Your task to perform on an android device: add a contact in the contacts app Image 0: 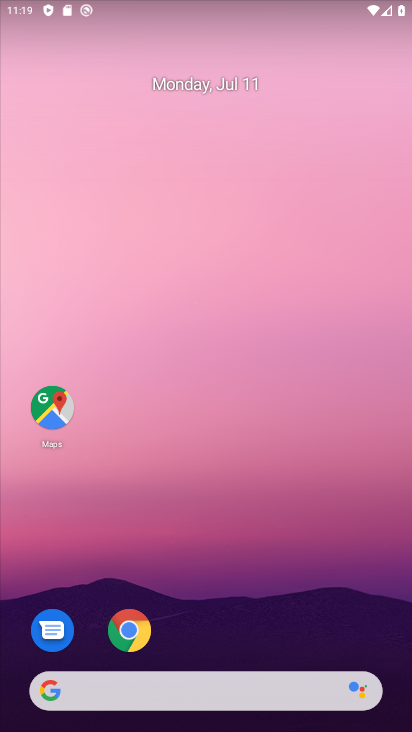
Step 0: drag from (355, 625) to (346, 175)
Your task to perform on an android device: add a contact in the contacts app Image 1: 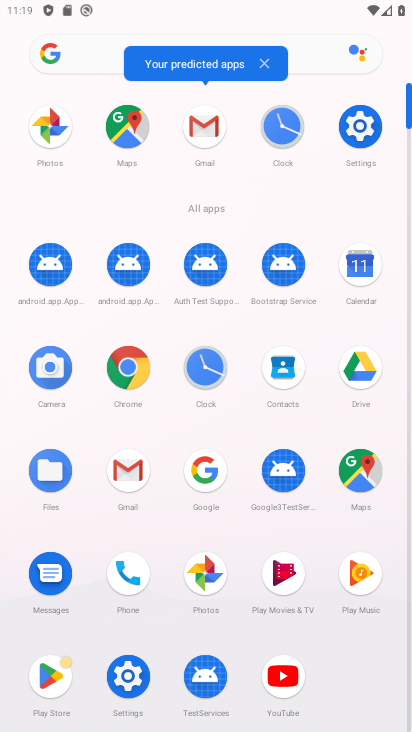
Step 1: click (282, 361)
Your task to perform on an android device: add a contact in the contacts app Image 2: 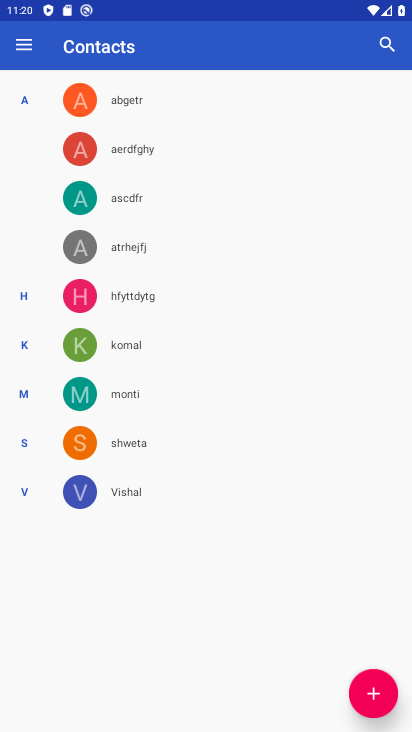
Step 2: click (367, 684)
Your task to perform on an android device: add a contact in the contacts app Image 3: 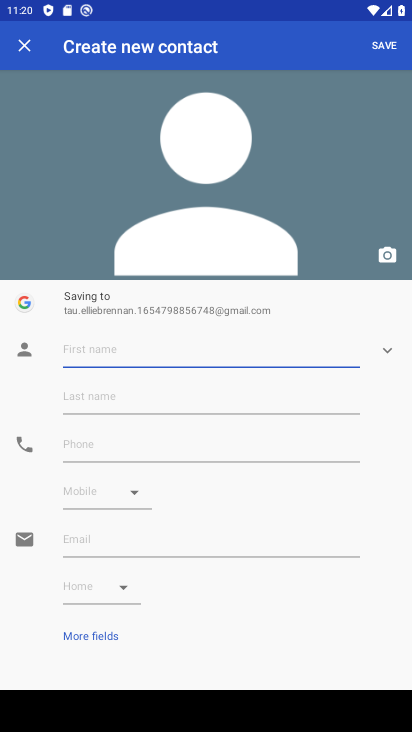
Step 3: type ""
Your task to perform on an android device: add a contact in the contacts app Image 4: 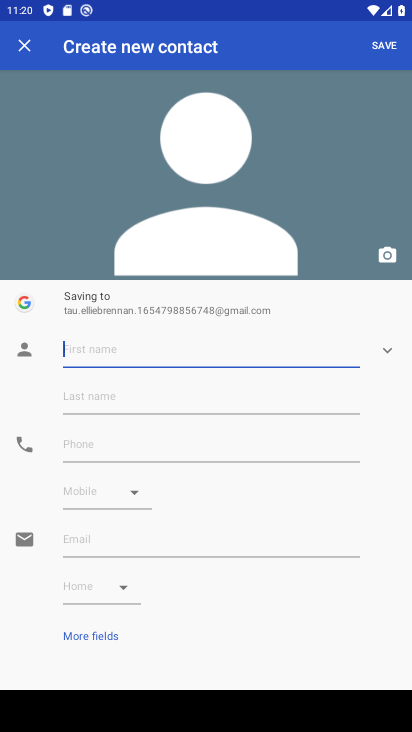
Step 4: type "khgfdgsgdfh"
Your task to perform on an android device: add a contact in the contacts app Image 5: 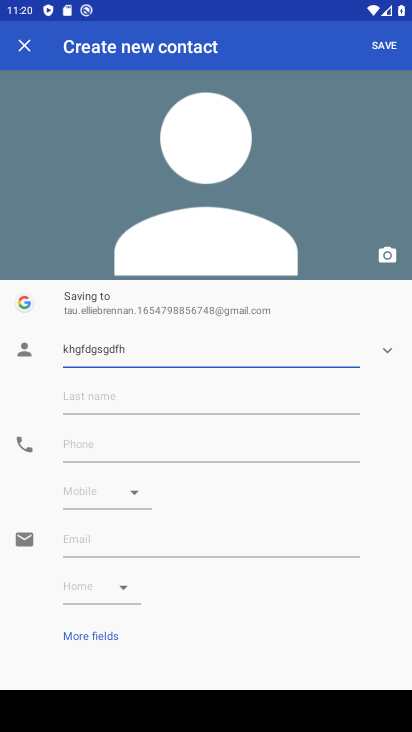
Step 5: click (101, 439)
Your task to perform on an android device: add a contact in the contacts app Image 6: 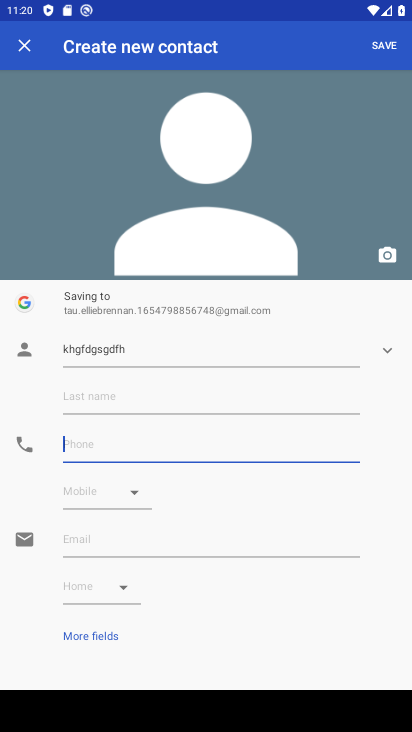
Step 6: type "0987654345"
Your task to perform on an android device: add a contact in the contacts app Image 7: 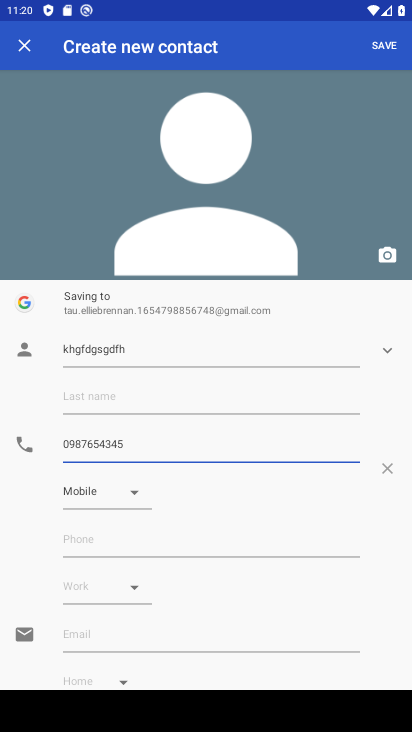
Step 7: click (383, 48)
Your task to perform on an android device: add a contact in the contacts app Image 8: 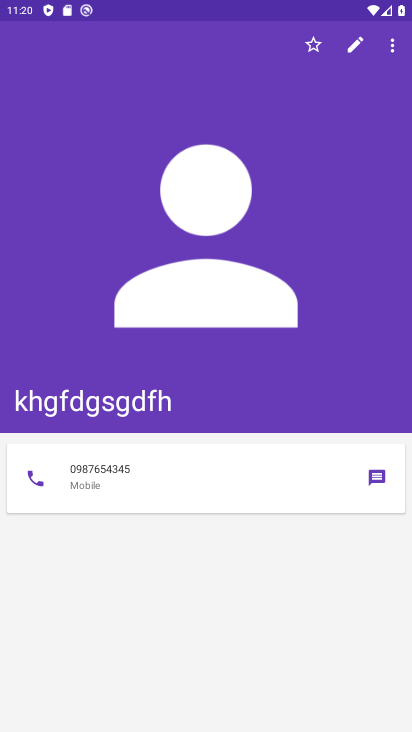
Step 8: task complete